Your task to perform on an android device: Open Yahoo.com Image 0: 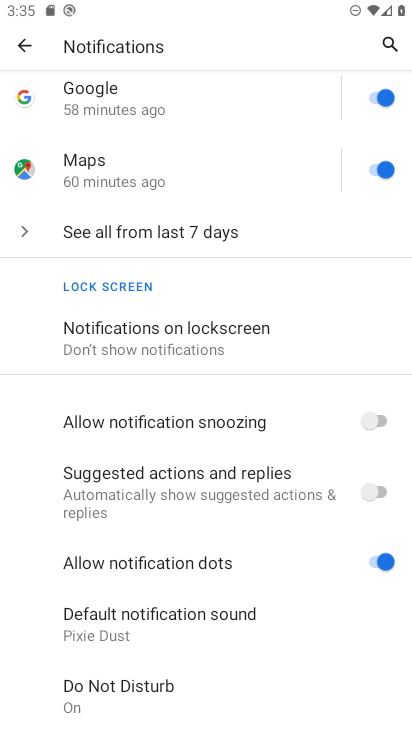
Step 0: press home button
Your task to perform on an android device: Open Yahoo.com Image 1: 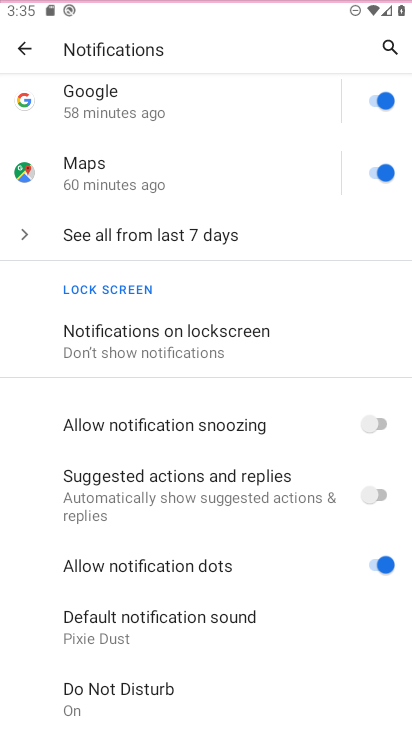
Step 1: press home button
Your task to perform on an android device: Open Yahoo.com Image 2: 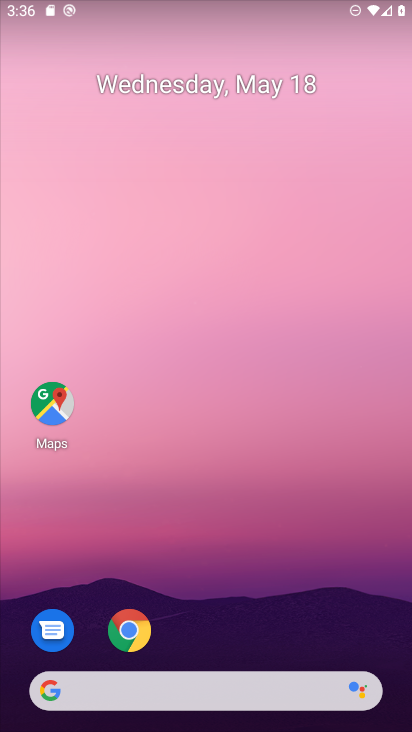
Step 2: click (127, 624)
Your task to perform on an android device: Open Yahoo.com Image 3: 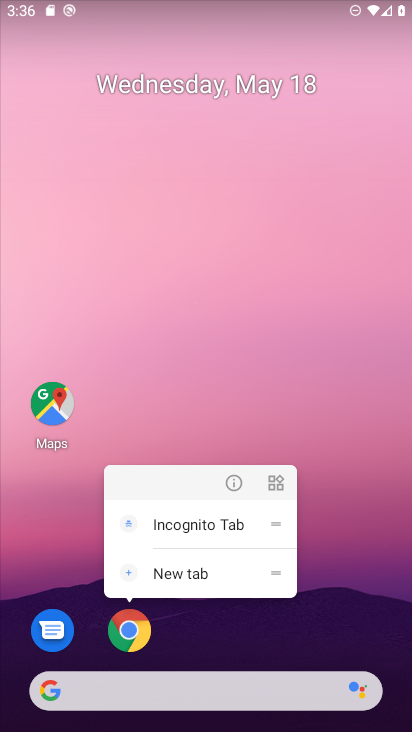
Step 3: click (124, 626)
Your task to perform on an android device: Open Yahoo.com Image 4: 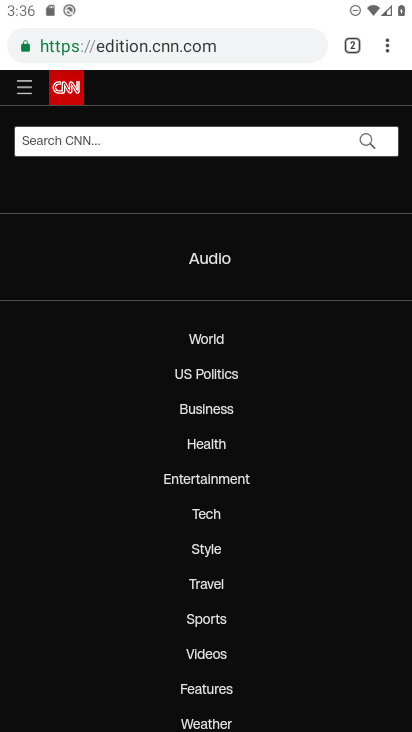
Step 4: click (351, 33)
Your task to perform on an android device: Open Yahoo.com Image 5: 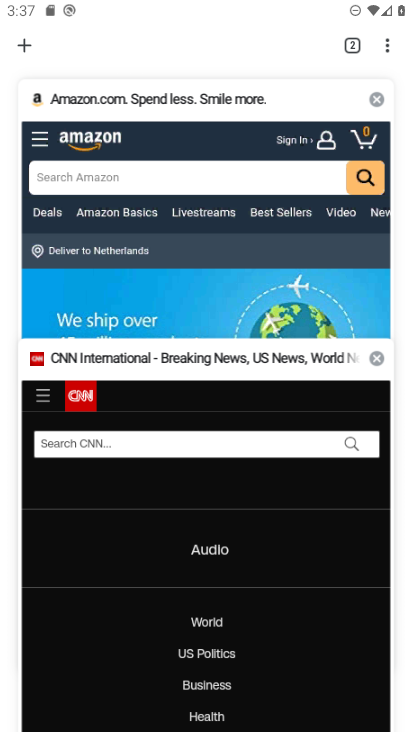
Step 5: click (22, 42)
Your task to perform on an android device: Open Yahoo.com Image 6: 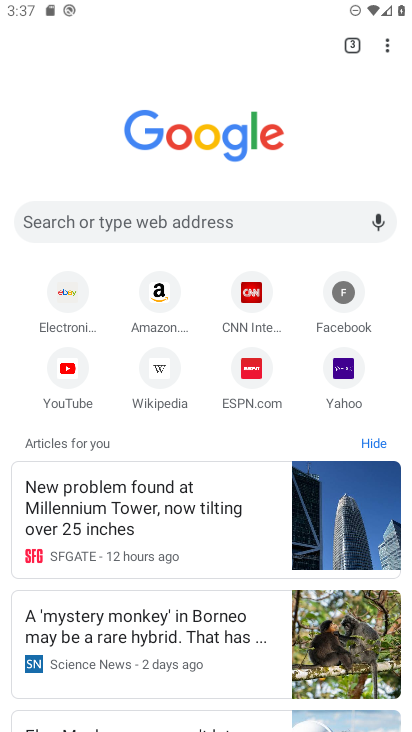
Step 6: click (346, 367)
Your task to perform on an android device: Open Yahoo.com Image 7: 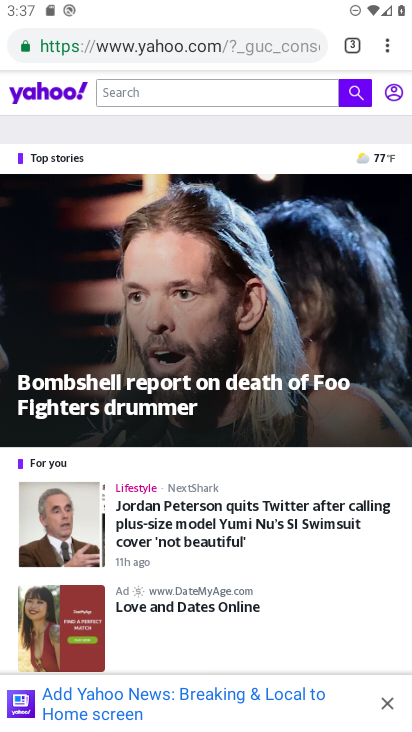
Step 7: task complete